Your task to perform on an android device: find which apps use the phone's location Image 0: 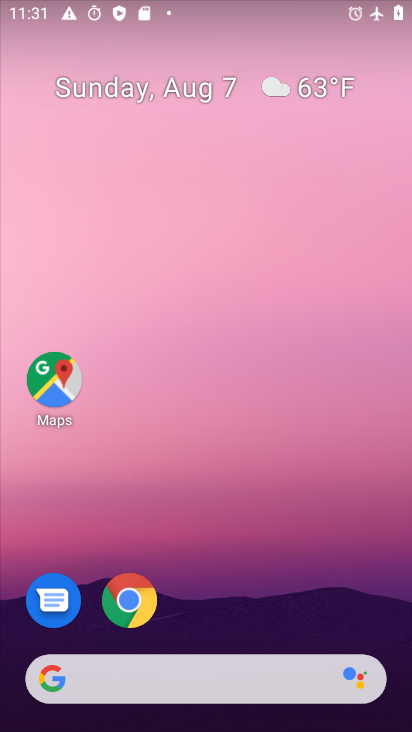
Step 0: drag from (188, 650) to (214, 118)
Your task to perform on an android device: find which apps use the phone's location Image 1: 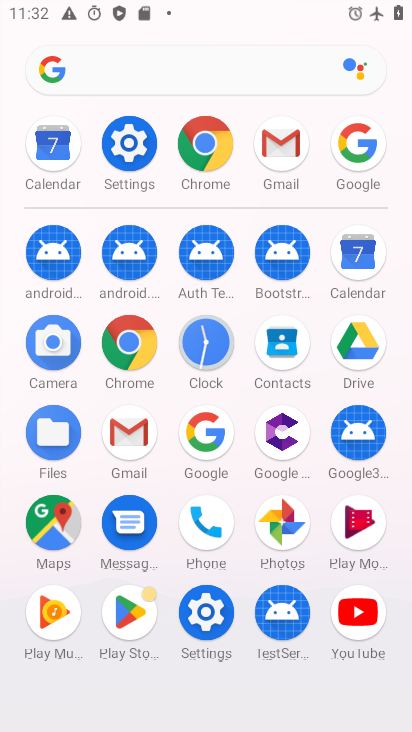
Step 1: click (129, 153)
Your task to perform on an android device: find which apps use the phone's location Image 2: 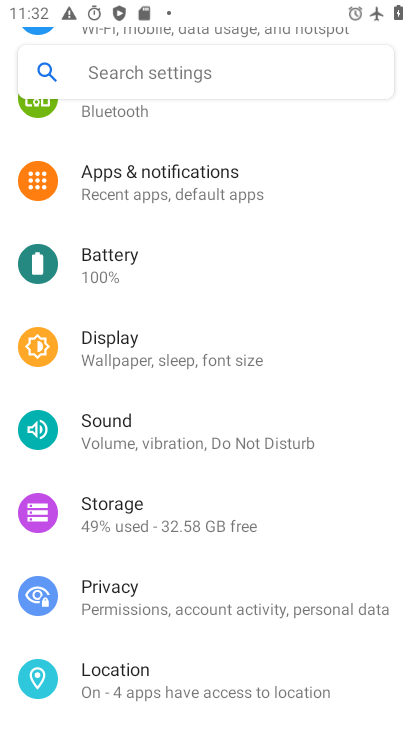
Step 2: click (190, 668)
Your task to perform on an android device: find which apps use the phone's location Image 3: 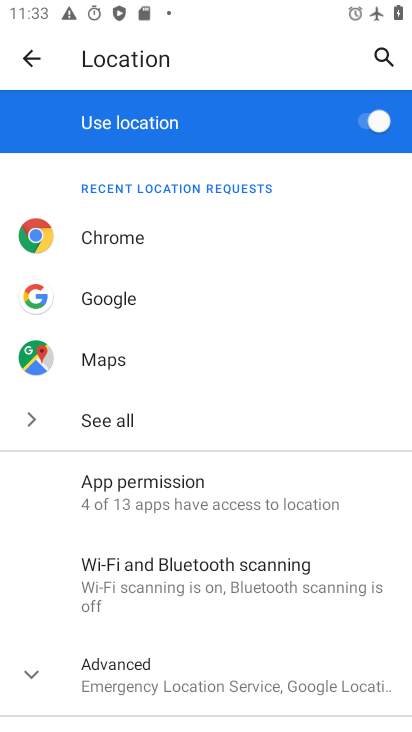
Step 3: drag from (212, 503) to (236, 263)
Your task to perform on an android device: find which apps use the phone's location Image 4: 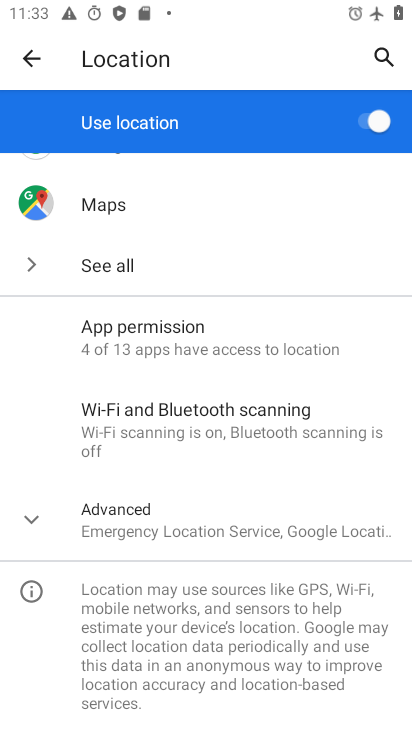
Step 4: click (198, 332)
Your task to perform on an android device: find which apps use the phone's location Image 5: 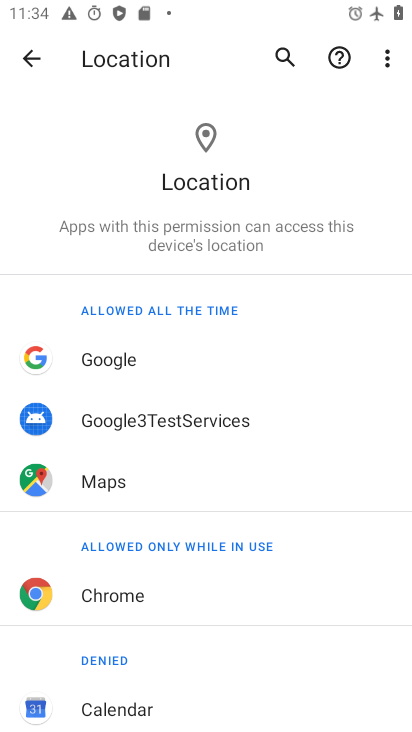
Step 5: task complete